Your task to perform on an android device: turn off translation in the chrome app Image 0: 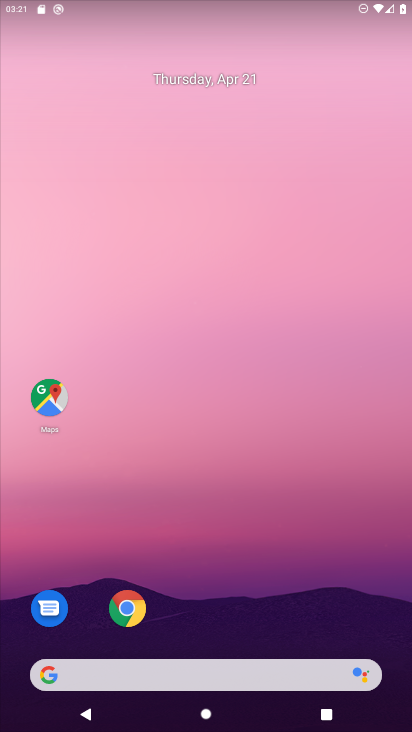
Step 0: drag from (220, 622) to (285, 159)
Your task to perform on an android device: turn off translation in the chrome app Image 1: 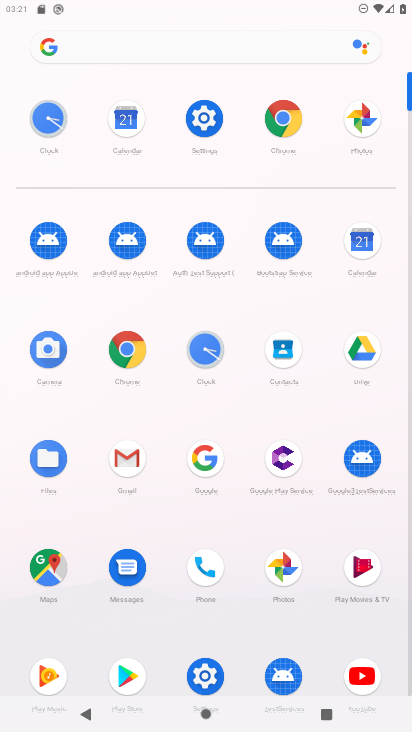
Step 1: click (286, 115)
Your task to perform on an android device: turn off translation in the chrome app Image 2: 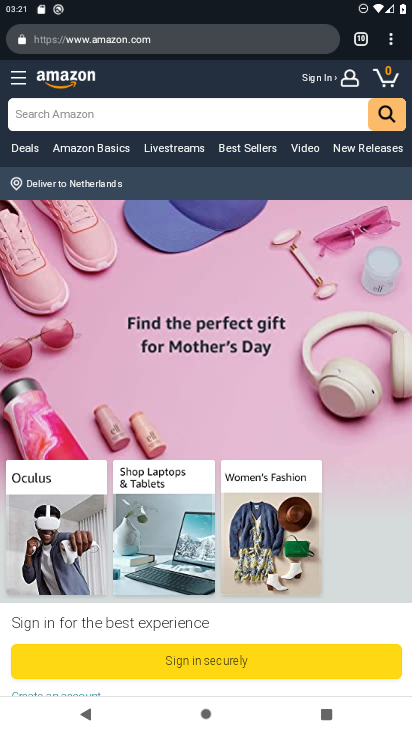
Step 2: click (286, 115)
Your task to perform on an android device: turn off translation in the chrome app Image 3: 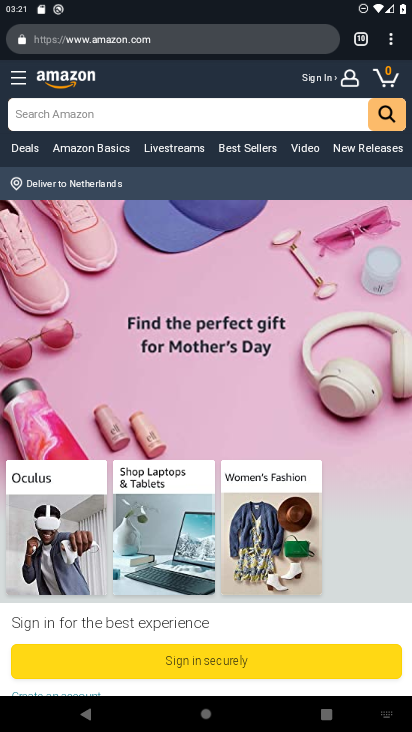
Step 3: click (392, 34)
Your task to perform on an android device: turn off translation in the chrome app Image 4: 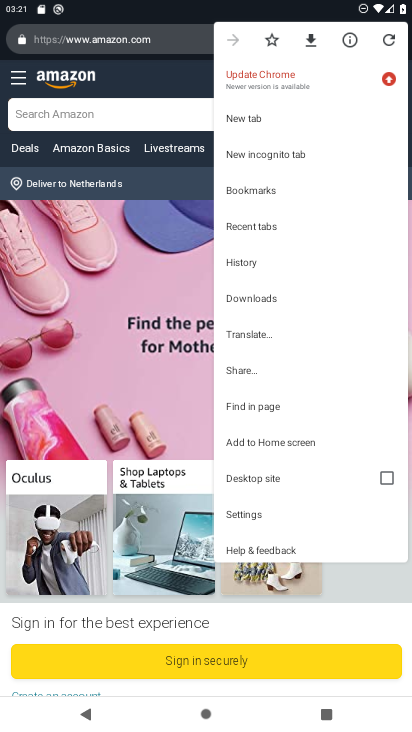
Step 4: click (262, 512)
Your task to perform on an android device: turn off translation in the chrome app Image 5: 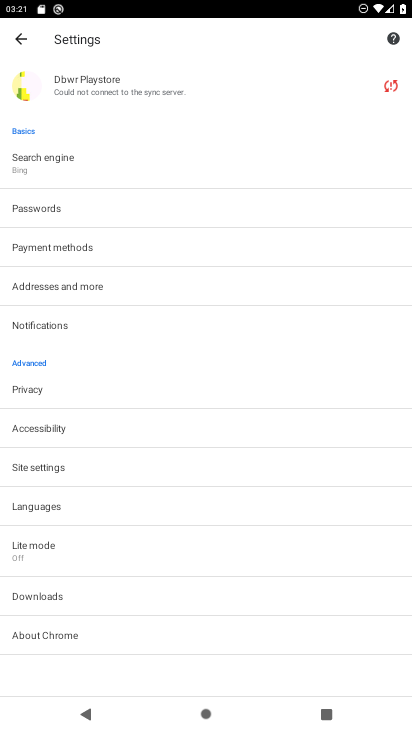
Step 5: click (66, 501)
Your task to perform on an android device: turn off translation in the chrome app Image 6: 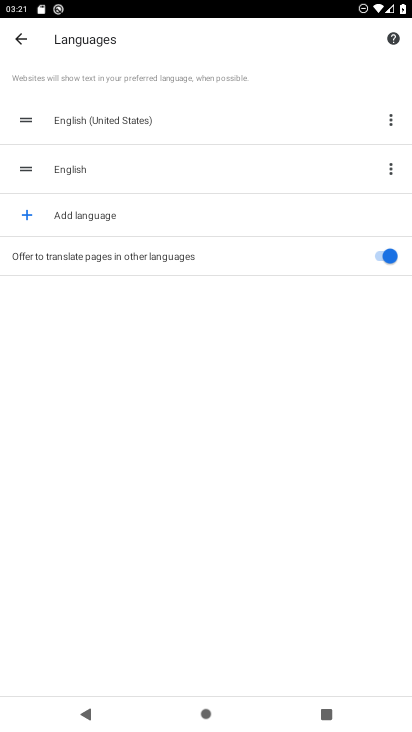
Step 6: click (378, 254)
Your task to perform on an android device: turn off translation in the chrome app Image 7: 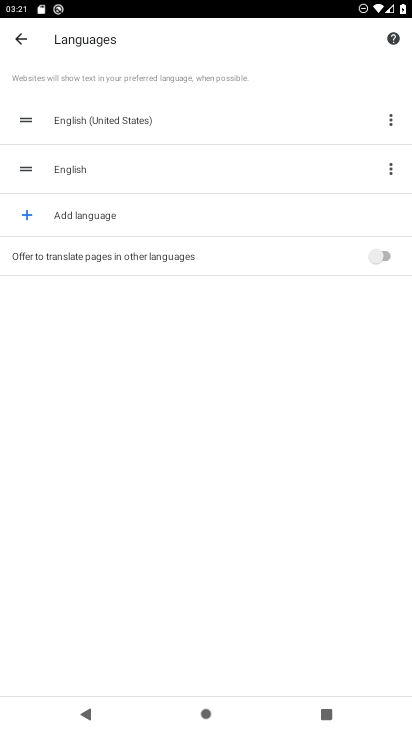
Step 7: task complete